Your task to perform on an android device: Go to ESPN.com Image 0: 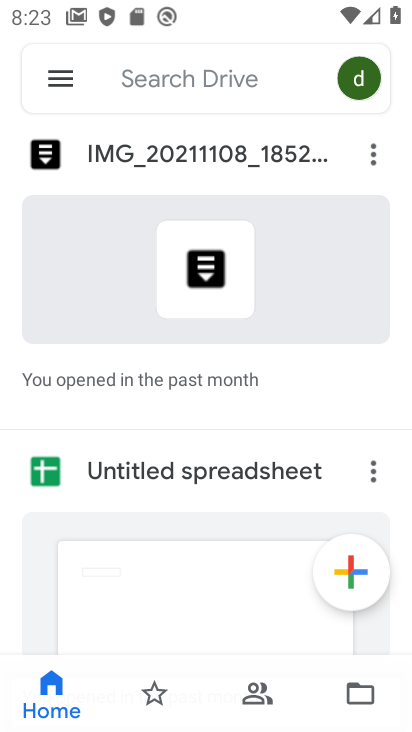
Step 0: press back button
Your task to perform on an android device: Go to ESPN.com Image 1: 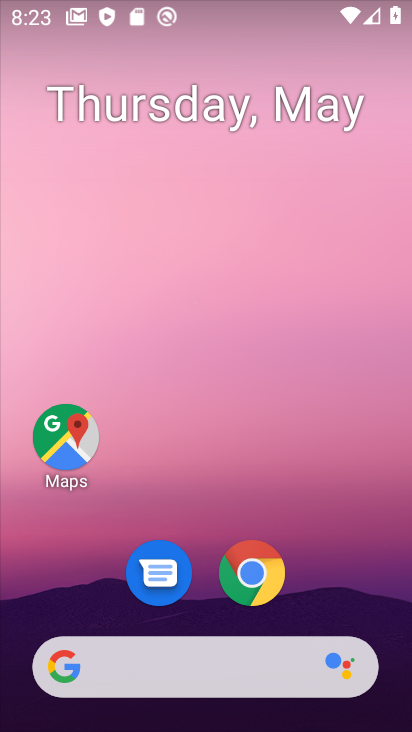
Step 1: click (256, 592)
Your task to perform on an android device: Go to ESPN.com Image 2: 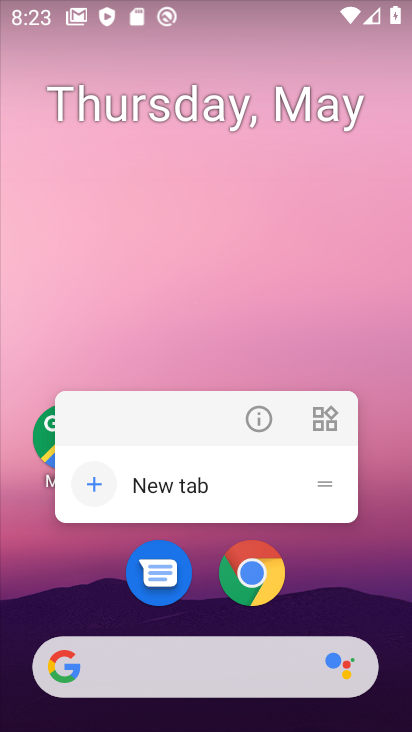
Step 2: click (256, 592)
Your task to perform on an android device: Go to ESPN.com Image 3: 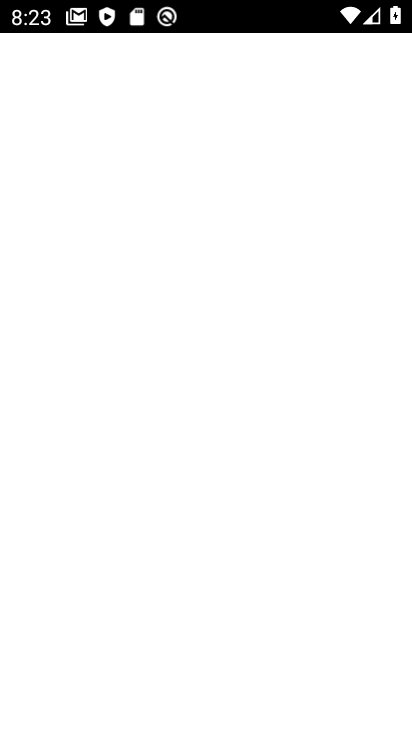
Step 3: click (269, 566)
Your task to perform on an android device: Go to ESPN.com Image 4: 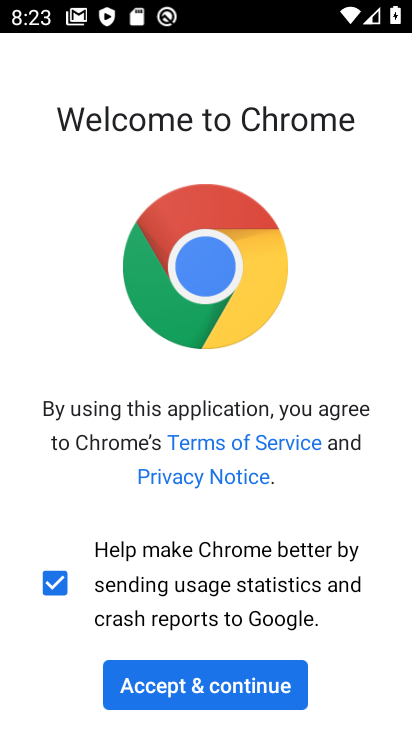
Step 4: click (230, 681)
Your task to perform on an android device: Go to ESPN.com Image 5: 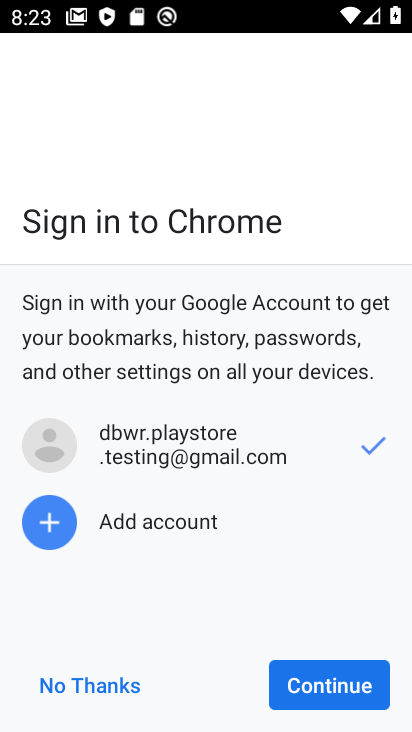
Step 5: click (364, 697)
Your task to perform on an android device: Go to ESPN.com Image 6: 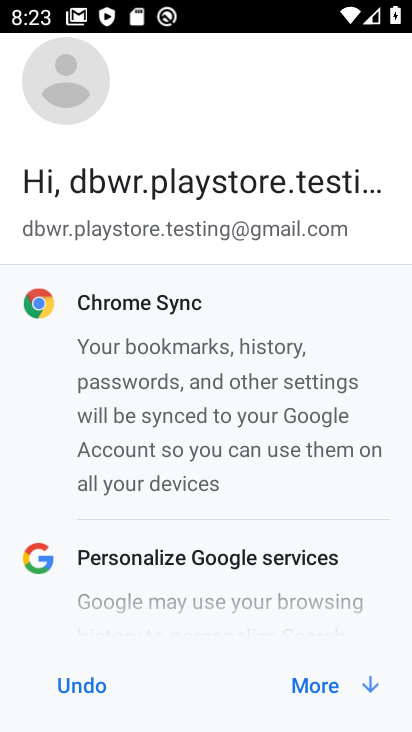
Step 6: click (353, 684)
Your task to perform on an android device: Go to ESPN.com Image 7: 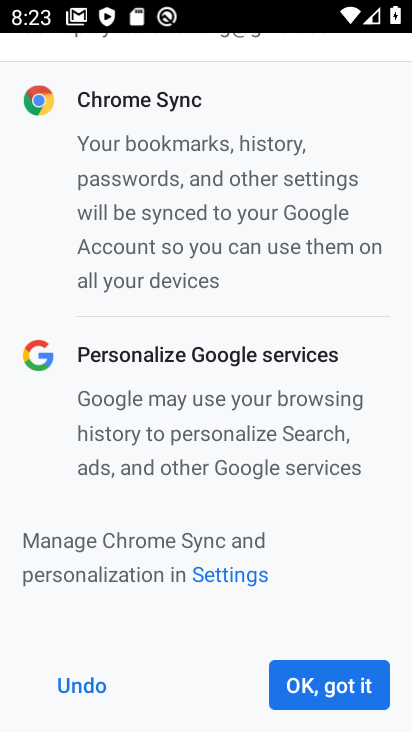
Step 7: click (353, 684)
Your task to perform on an android device: Go to ESPN.com Image 8: 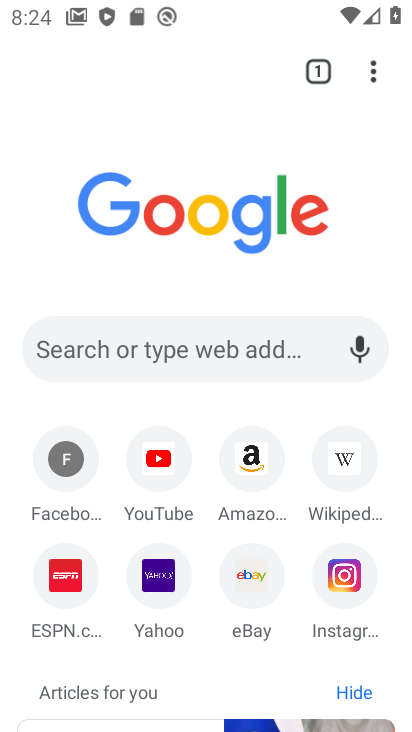
Step 8: click (55, 579)
Your task to perform on an android device: Go to ESPN.com Image 9: 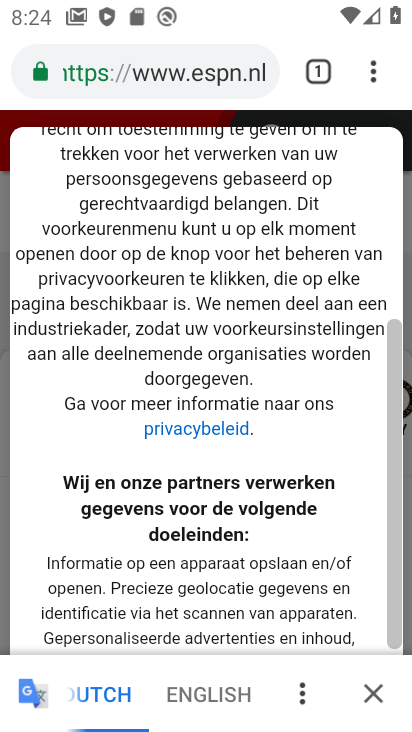
Step 9: drag from (211, 565) to (279, 289)
Your task to perform on an android device: Go to ESPN.com Image 10: 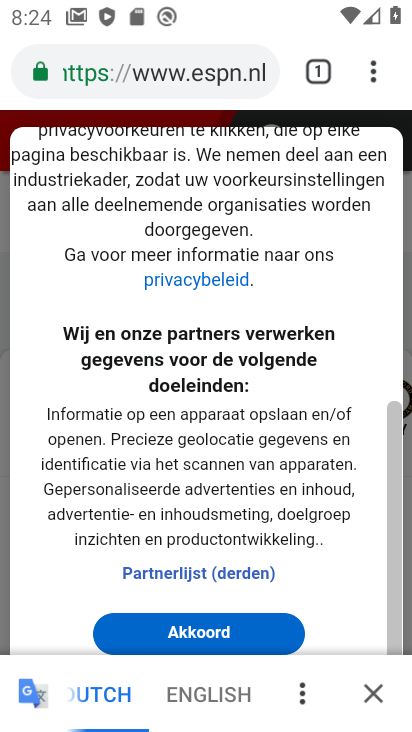
Step 10: click (251, 691)
Your task to perform on an android device: Go to ESPN.com Image 11: 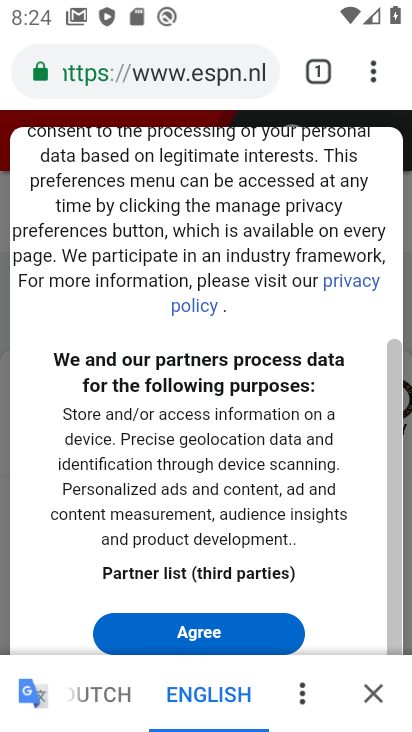
Step 11: click (234, 638)
Your task to perform on an android device: Go to ESPN.com Image 12: 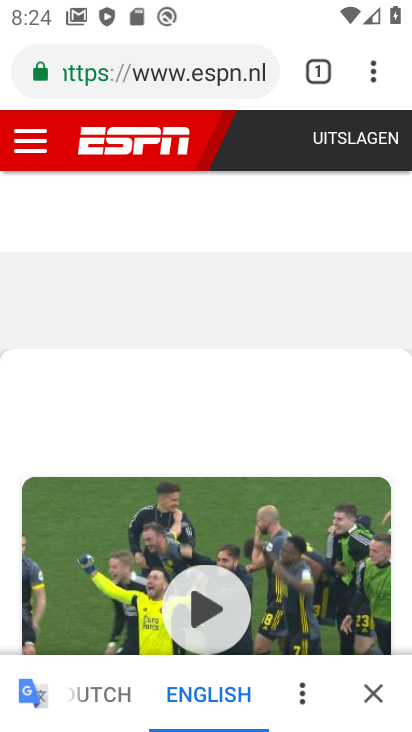
Step 12: task complete